Your task to perform on an android device: Go to CNN.com Image 0: 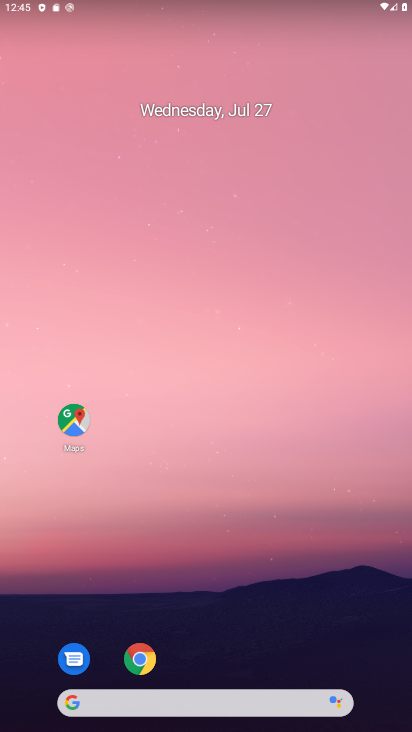
Step 0: drag from (309, 586) to (271, 80)
Your task to perform on an android device: Go to CNN.com Image 1: 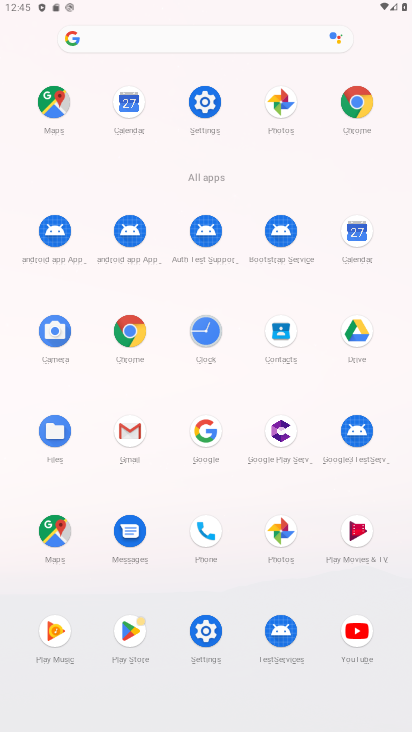
Step 1: click (355, 106)
Your task to perform on an android device: Go to CNN.com Image 2: 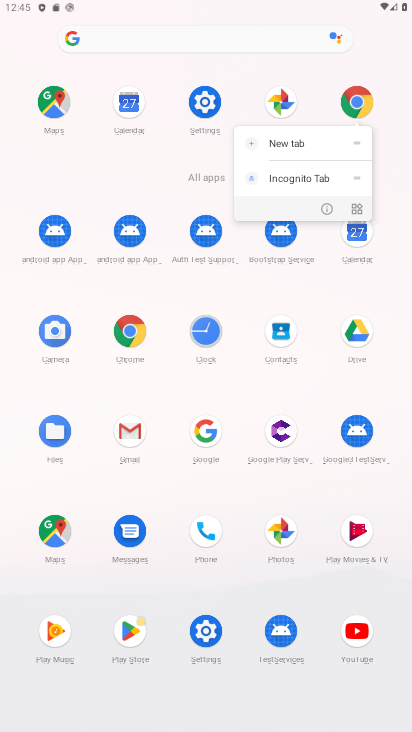
Step 2: click (358, 105)
Your task to perform on an android device: Go to CNN.com Image 3: 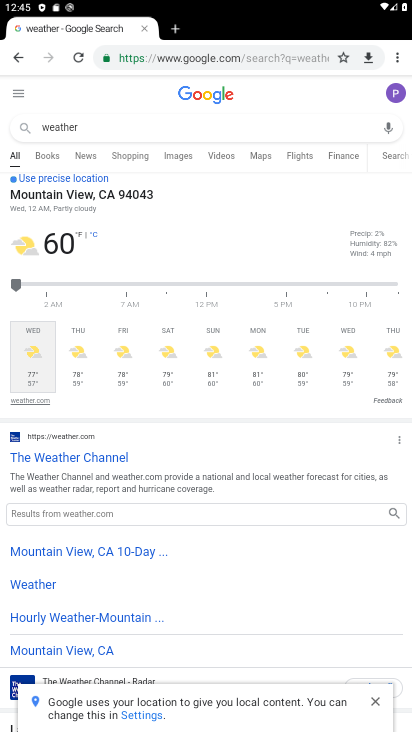
Step 3: click (183, 58)
Your task to perform on an android device: Go to CNN.com Image 4: 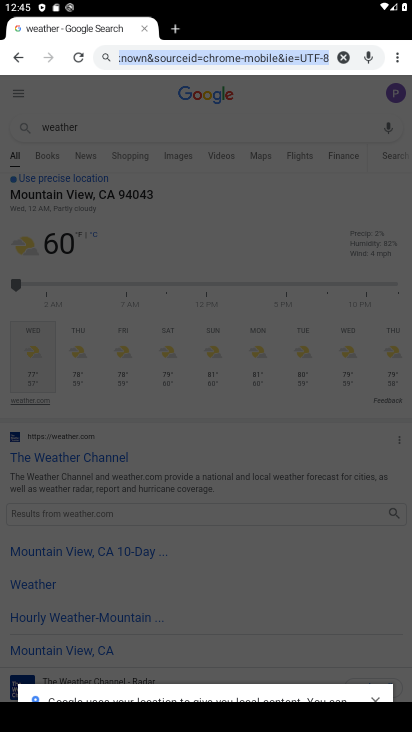
Step 4: type "cnn.com"
Your task to perform on an android device: Go to CNN.com Image 5: 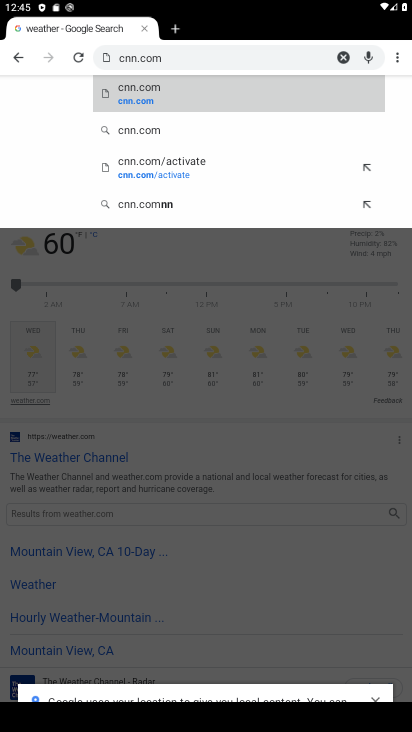
Step 5: click (161, 95)
Your task to perform on an android device: Go to CNN.com Image 6: 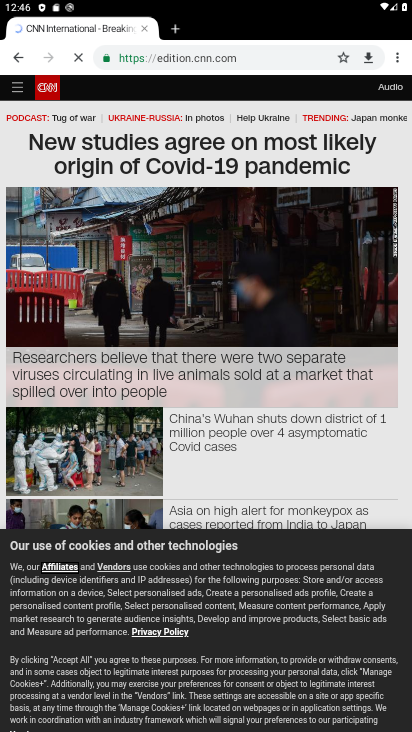
Step 6: task complete